Your task to perform on an android device: change the upload size in google photos Image 0: 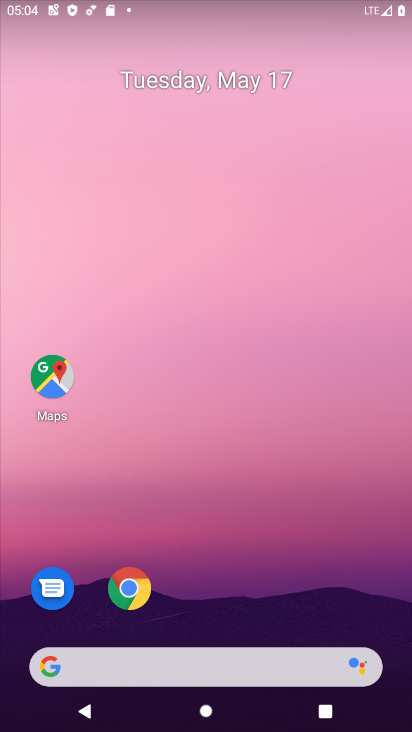
Step 0: drag from (224, 613) to (210, 116)
Your task to perform on an android device: change the upload size in google photos Image 1: 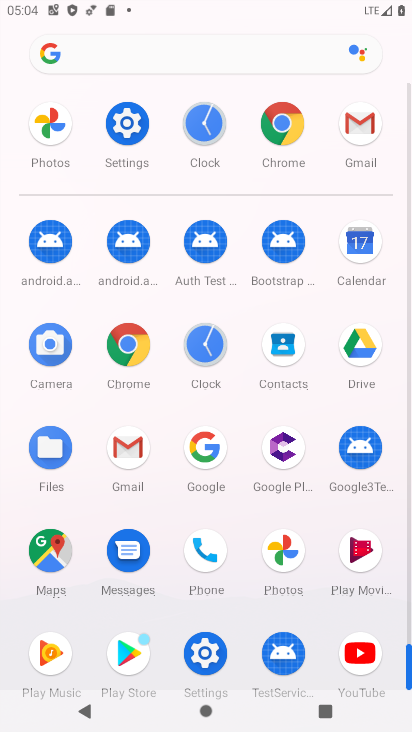
Step 1: drag from (155, 602) to (169, 406)
Your task to perform on an android device: change the upload size in google photos Image 2: 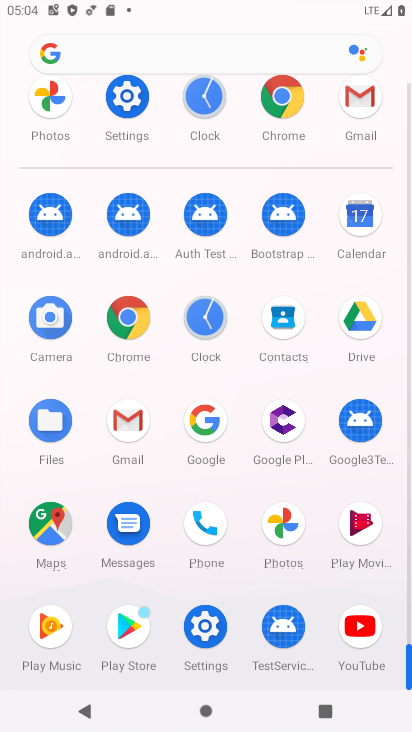
Step 2: click (281, 521)
Your task to perform on an android device: change the upload size in google photos Image 3: 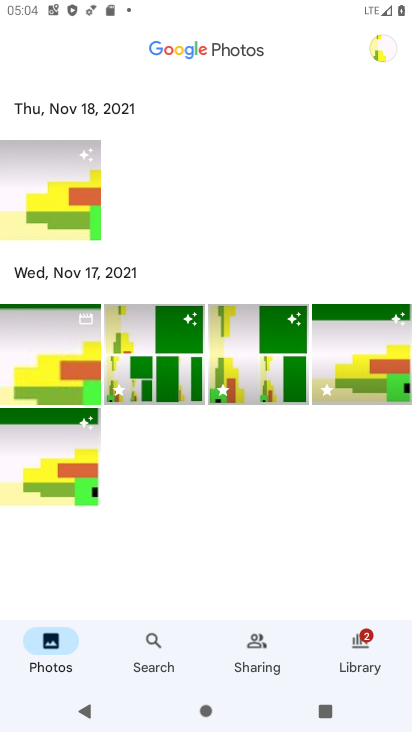
Step 3: click (385, 50)
Your task to perform on an android device: change the upload size in google photos Image 4: 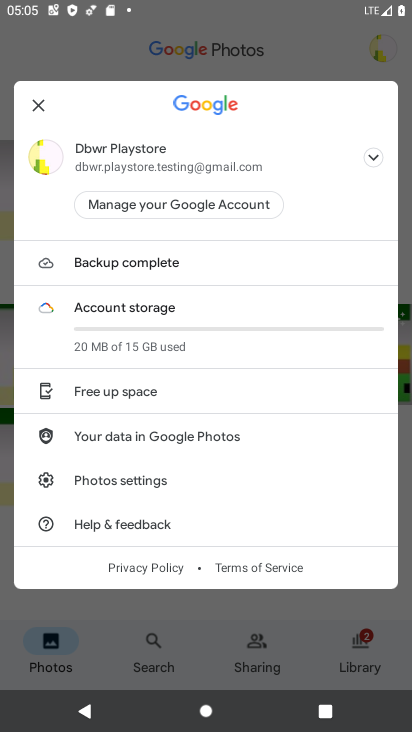
Step 4: click (121, 480)
Your task to perform on an android device: change the upload size in google photos Image 5: 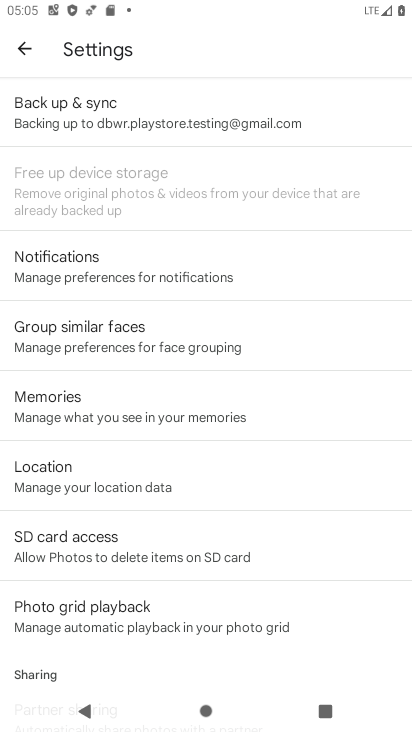
Step 5: click (101, 117)
Your task to perform on an android device: change the upload size in google photos Image 6: 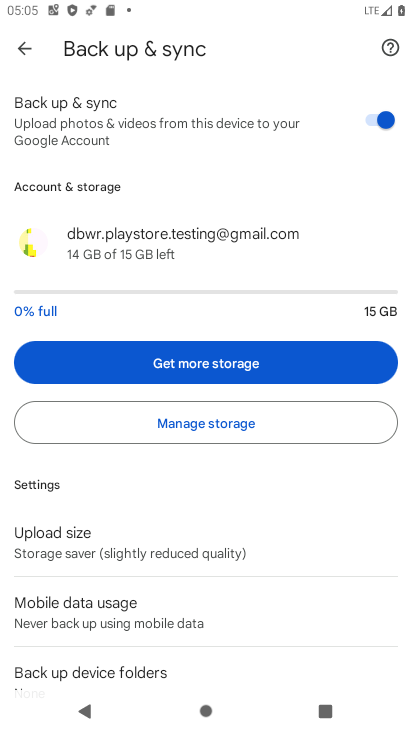
Step 6: click (112, 548)
Your task to perform on an android device: change the upload size in google photos Image 7: 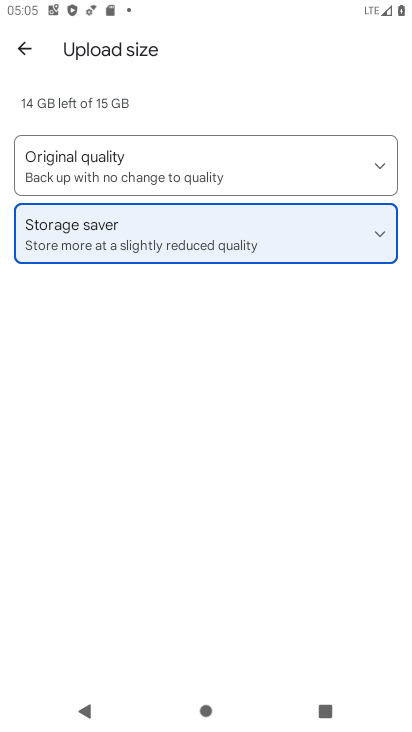
Step 7: click (61, 171)
Your task to perform on an android device: change the upload size in google photos Image 8: 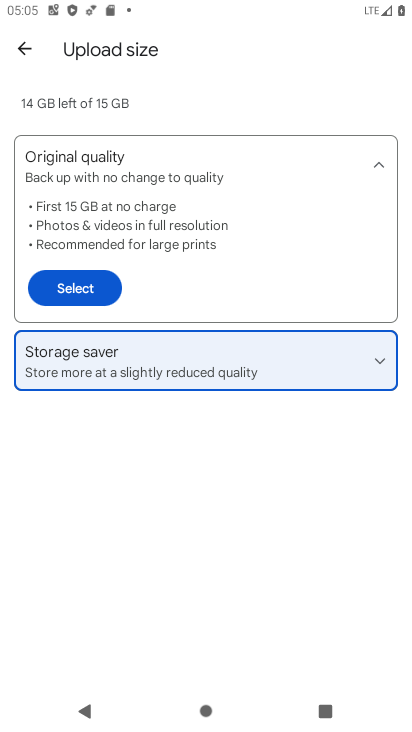
Step 8: click (70, 280)
Your task to perform on an android device: change the upload size in google photos Image 9: 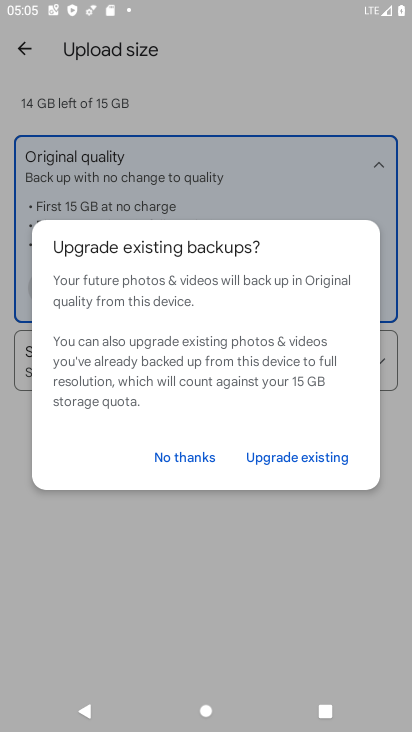
Step 9: click (202, 460)
Your task to perform on an android device: change the upload size in google photos Image 10: 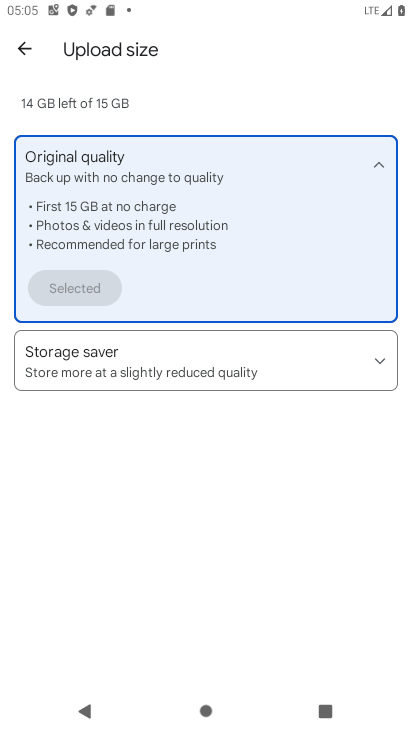
Step 10: task complete